Your task to perform on an android device: uninstall "TextNow: Call + Text Unlimited" Image 0: 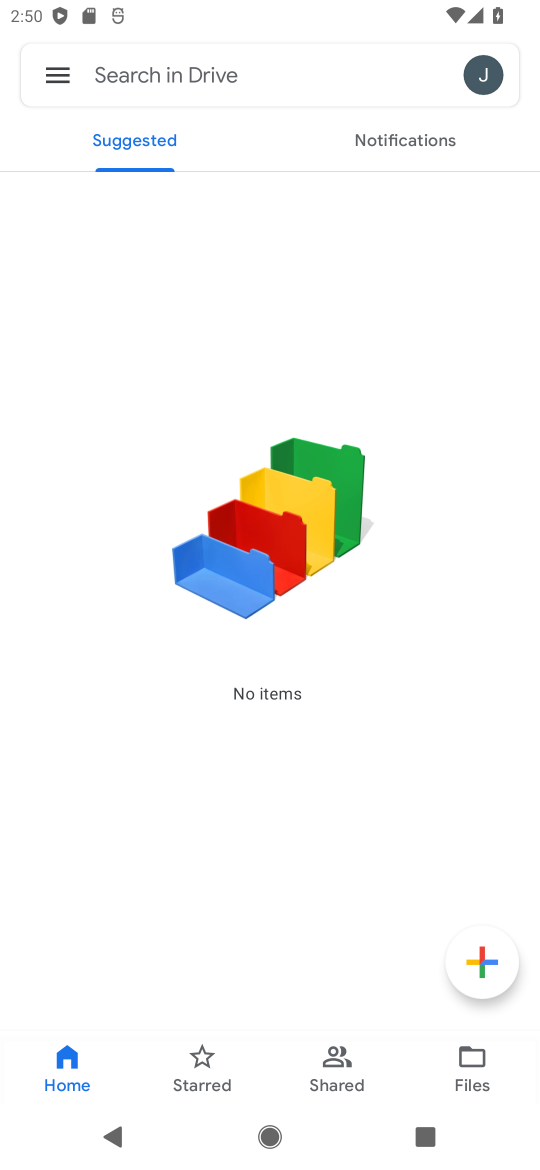
Step 0: press home button
Your task to perform on an android device: uninstall "TextNow: Call + Text Unlimited" Image 1: 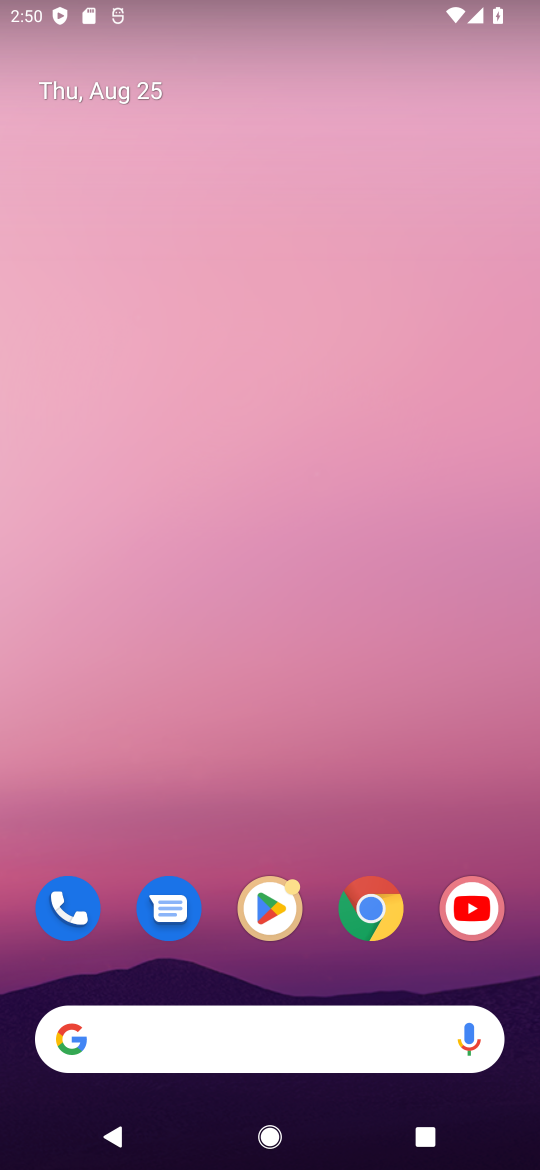
Step 1: click (257, 920)
Your task to perform on an android device: uninstall "TextNow: Call + Text Unlimited" Image 2: 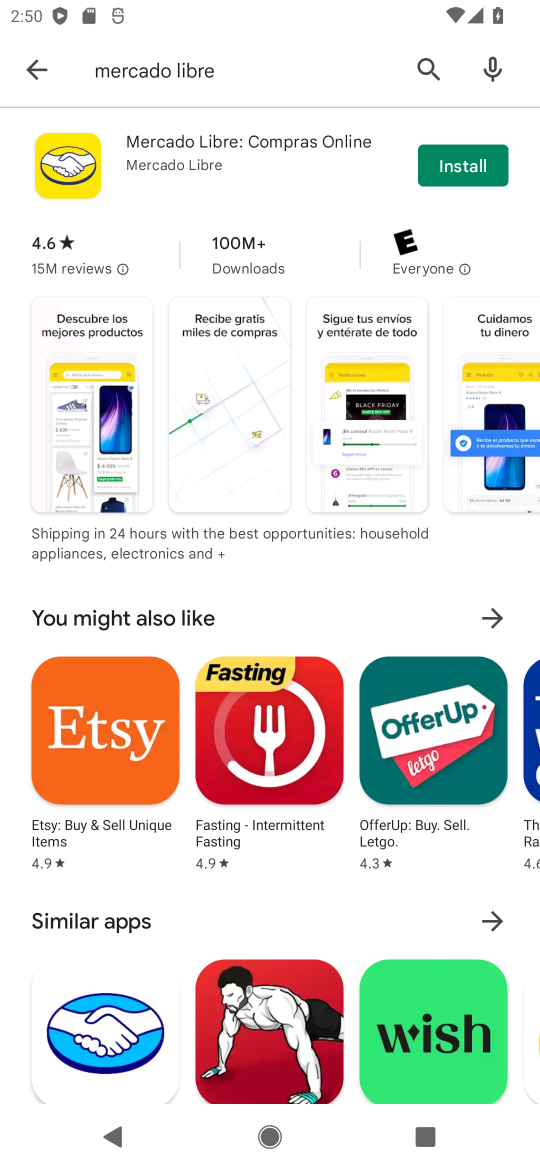
Step 2: click (421, 73)
Your task to perform on an android device: uninstall "TextNow: Call + Text Unlimited" Image 3: 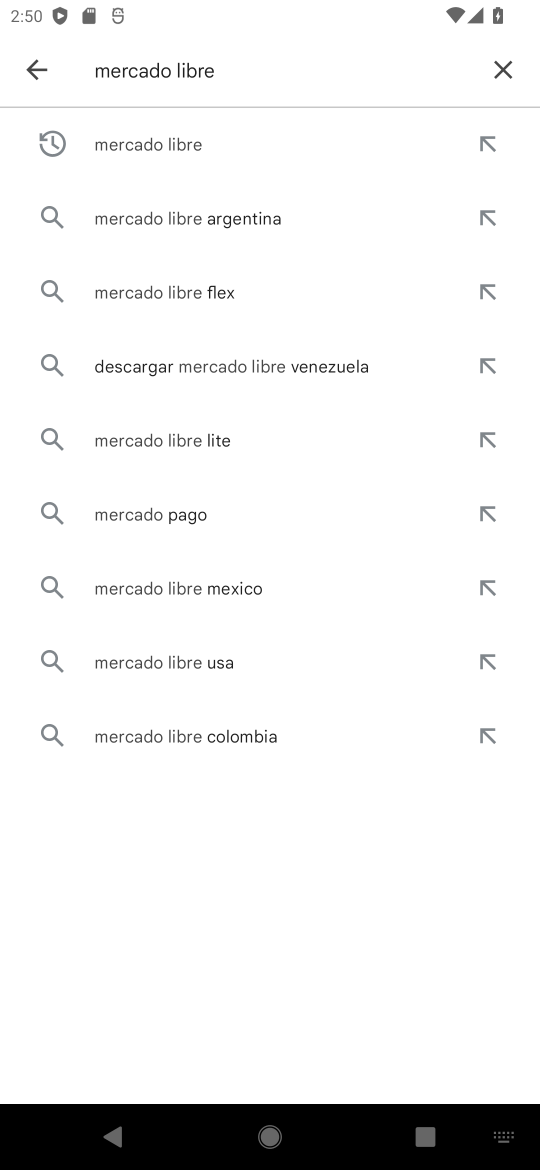
Step 3: click (263, 74)
Your task to perform on an android device: uninstall "TextNow: Call + Text Unlimited" Image 4: 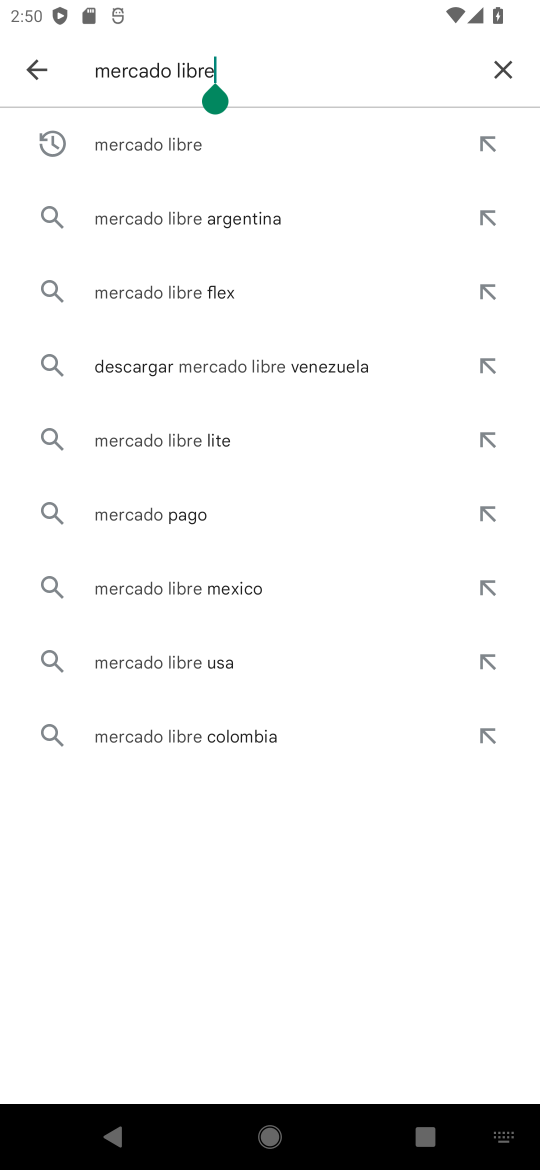
Step 4: click (498, 64)
Your task to perform on an android device: uninstall "TextNow: Call + Text Unlimited" Image 5: 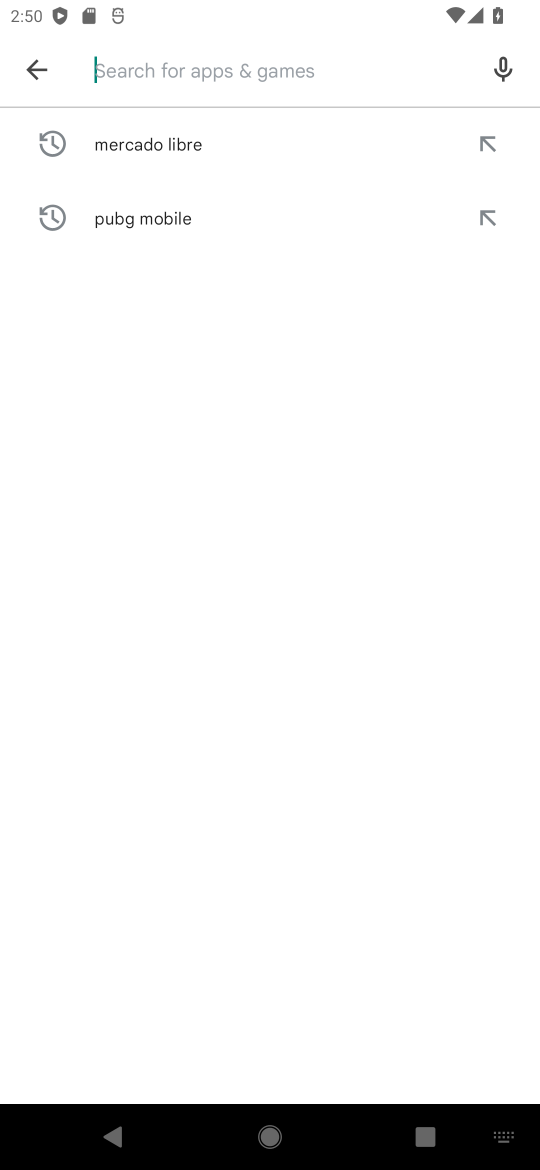
Step 5: type "TextNow: Call + Text Unlimited"
Your task to perform on an android device: uninstall "TextNow: Call + Text Unlimited" Image 6: 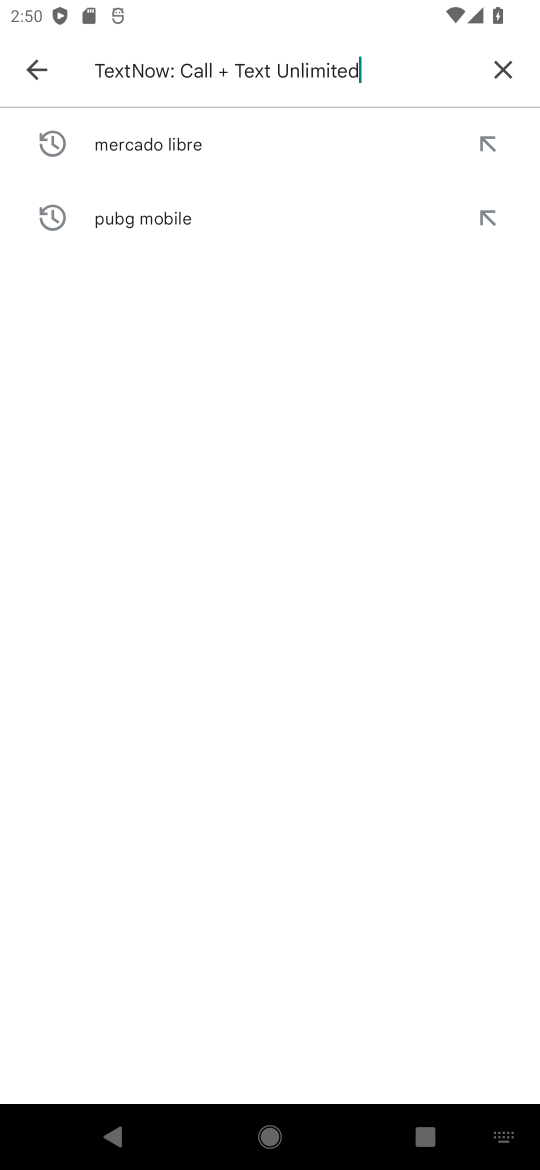
Step 6: type ""
Your task to perform on an android device: uninstall "TextNow: Call + Text Unlimited" Image 7: 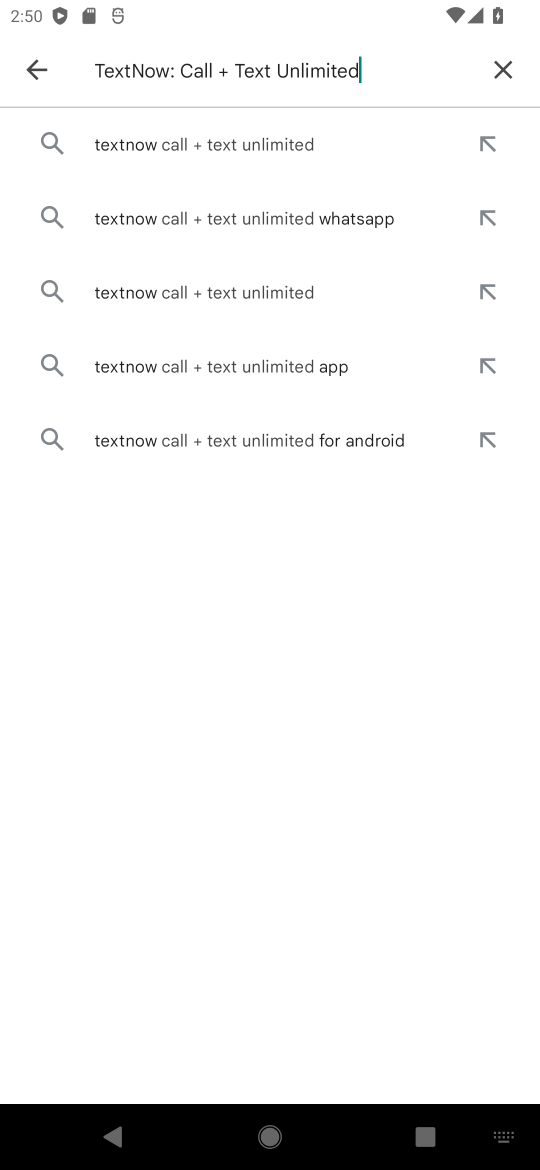
Step 7: click (200, 139)
Your task to perform on an android device: uninstall "TextNow: Call + Text Unlimited" Image 8: 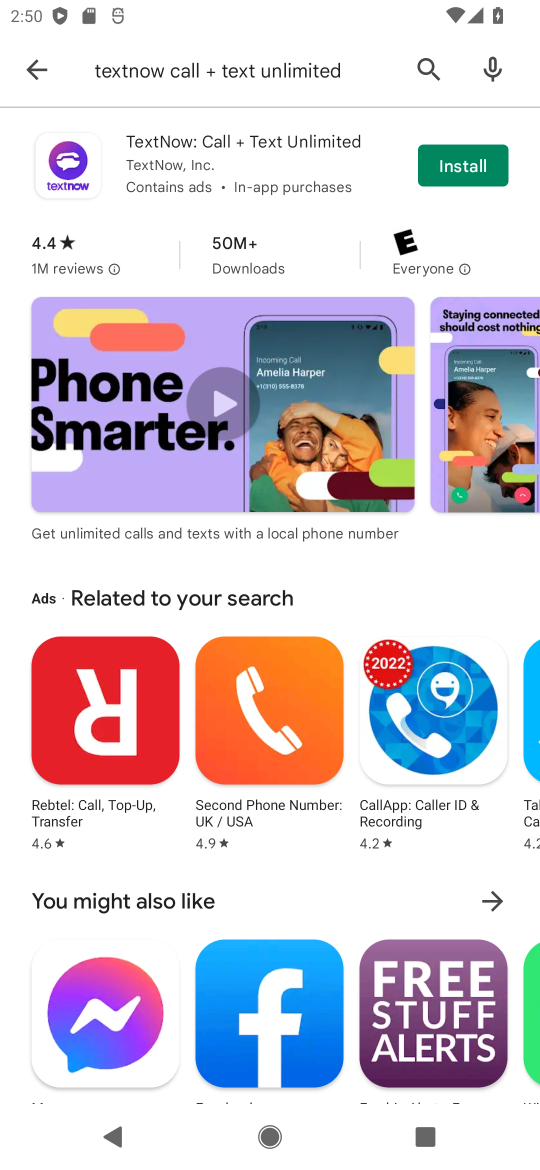
Step 8: task complete